Your task to perform on an android device: Open Wikipedia Image 0: 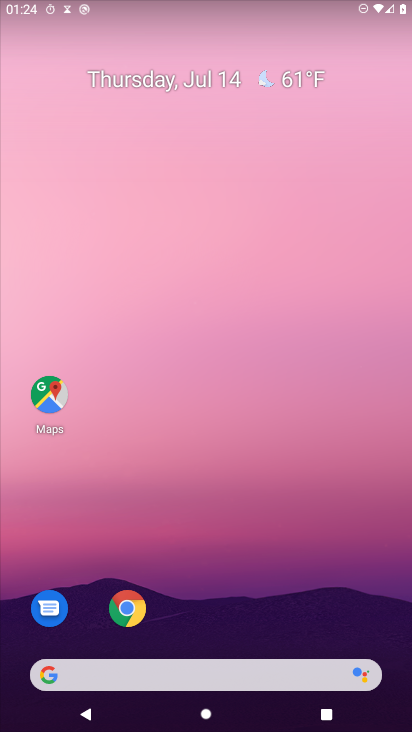
Step 0: click (44, 673)
Your task to perform on an android device: Open Wikipedia Image 1: 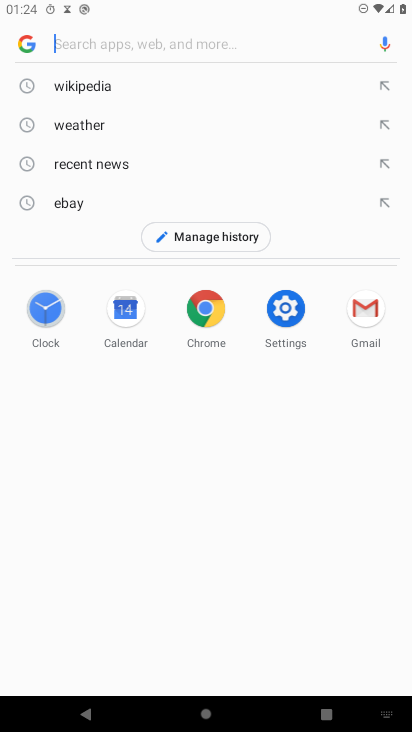
Step 1: click (87, 85)
Your task to perform on an android device: Open Wikipedia Image 2: 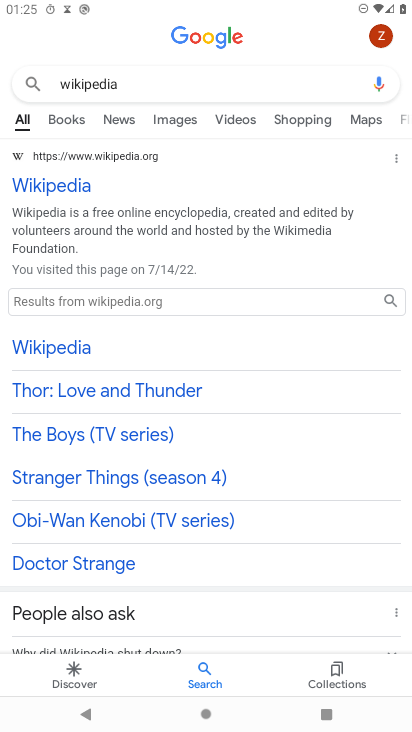
Step 2: click (53, 184)
Your task to perform on an android device: Open Wikipedia Image 3: 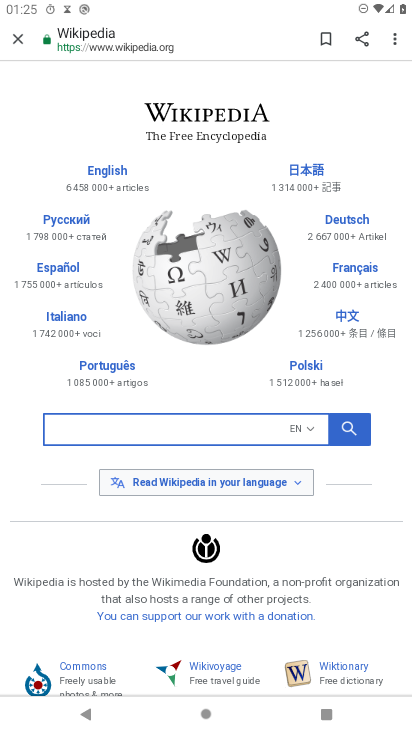
Step 3: task complete